Your task to perform on an android device: Search for the best selling phone on AliExpress Image 0: 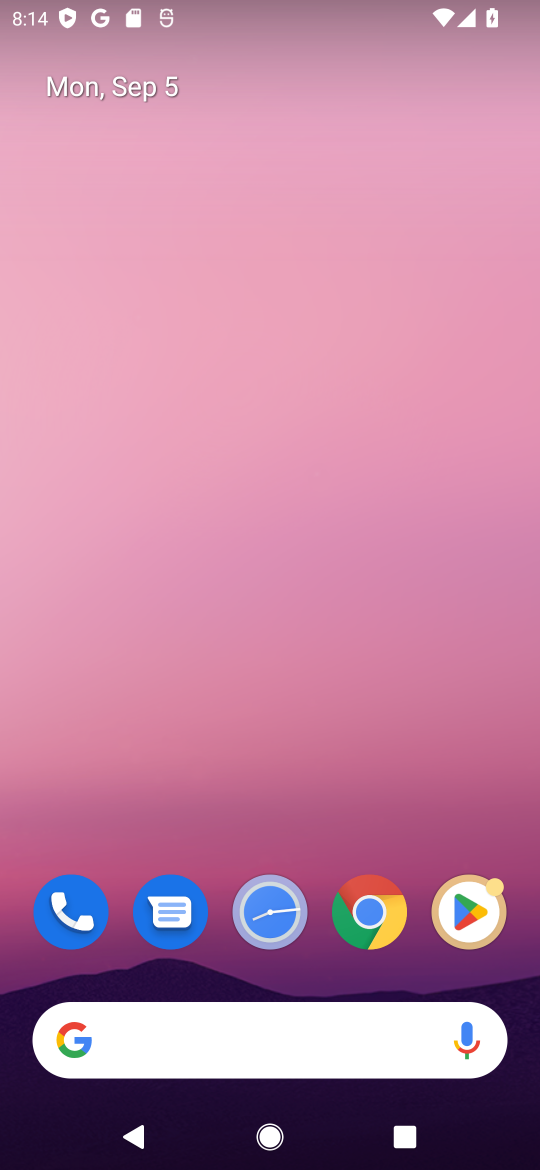
Step 0: click (374, 912)
Your task to perform on an android device: Search for the best selling phone on AliExpress Image 1: 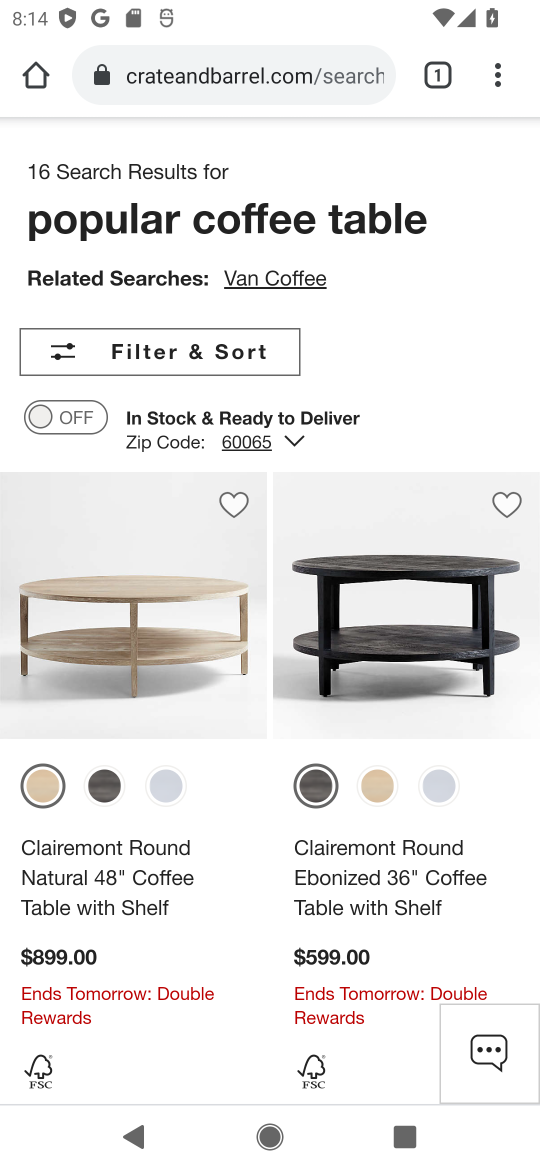
Step 1: click (288, 92)
Your task to perform on an android device: Search for the best selling phone on AliExpress Image 2: 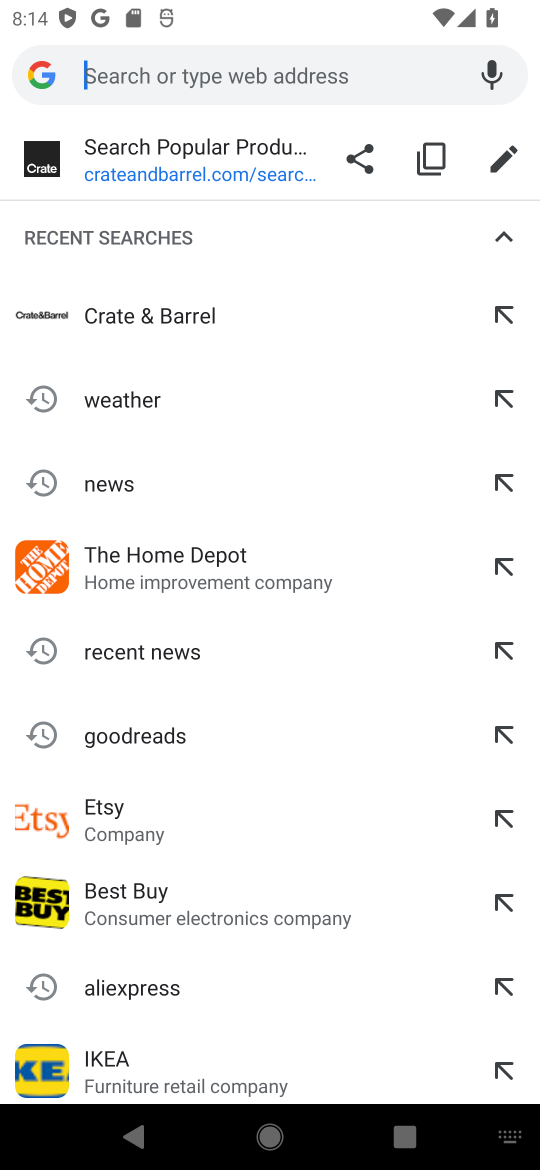
Step 2: type "aliexpress"
Your task to perform on an android device: Search for the best selling phone on AliExpress Image 3: 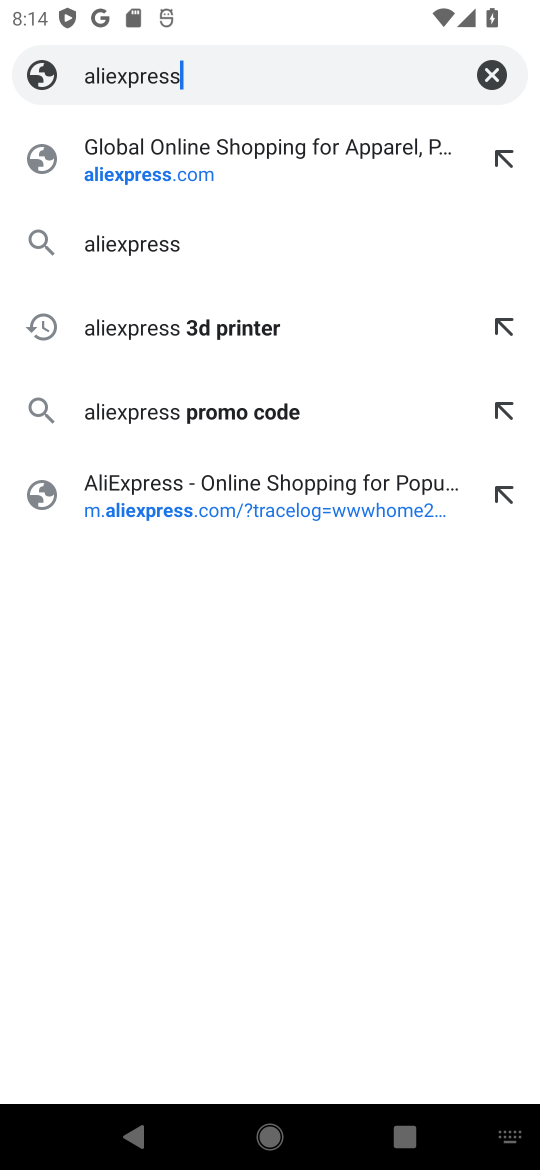
Step 3: press enter
Your task to perform on an android device: Search for the best selling phone on AliExpress Image 4: 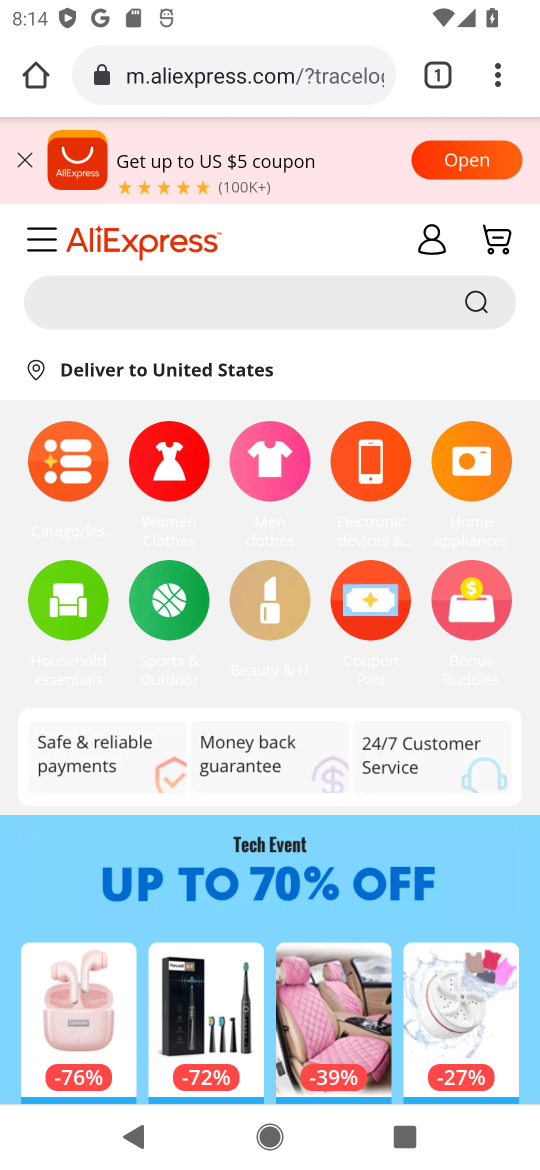
Step 4: click (174, 282)
Your task to perform on an android device: Search for the best selling phone on AliExpress Image 5: 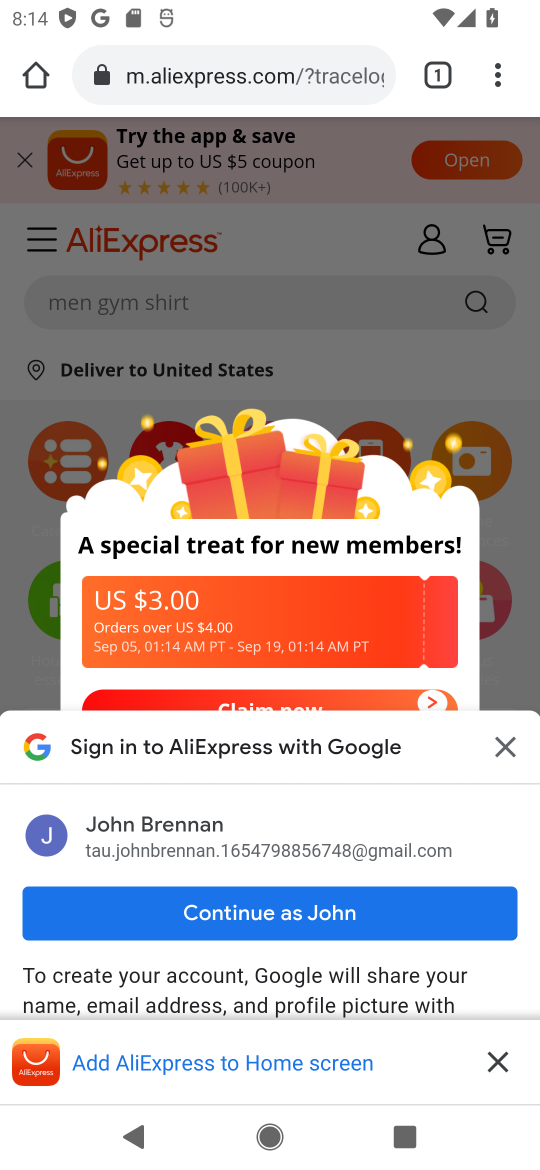
Step 5: click (493, 1057)
Your task to perform on an android device: Search for the best selling phone on AliExpress Image 6: 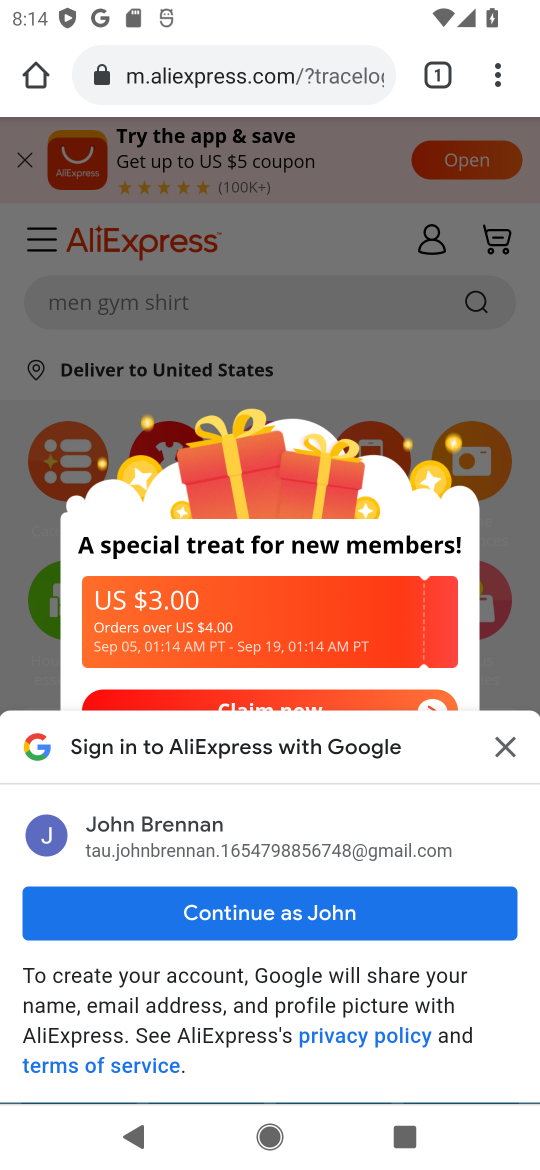
Step 6: click (412, 904)
Your task to perform on an android device: Search for the best selling phone on AliExpress Image 7: 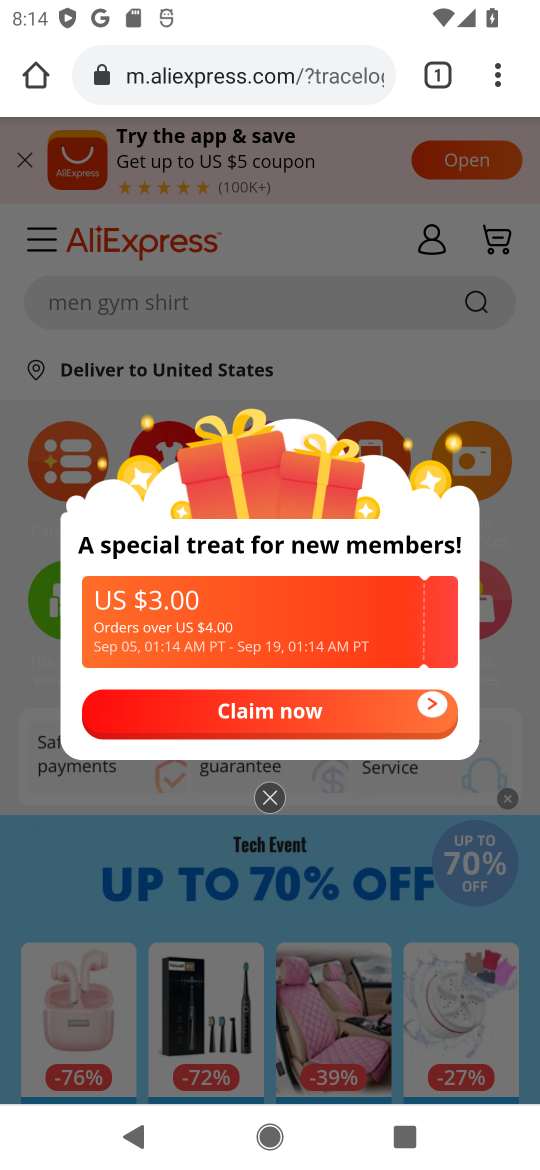
Step 7: click (283, 277)
Your task to perform on an android device: Search for the best selling phone on AliExpress Image 8: 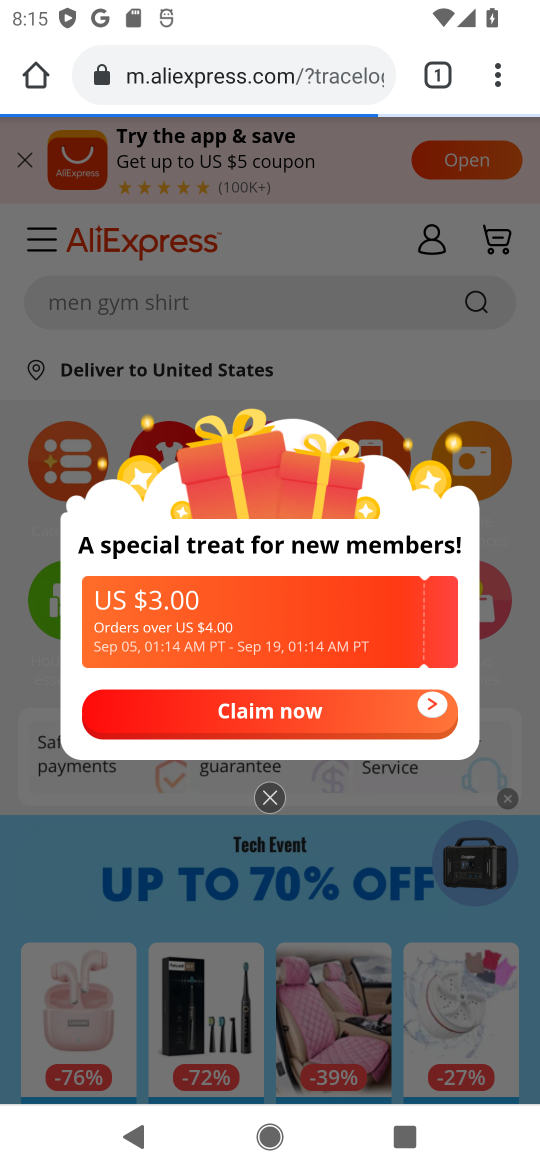
Step 8: click (436, 714)
Your task to perform on an android device: Search for the best selling phone on AliExpress Image 9: 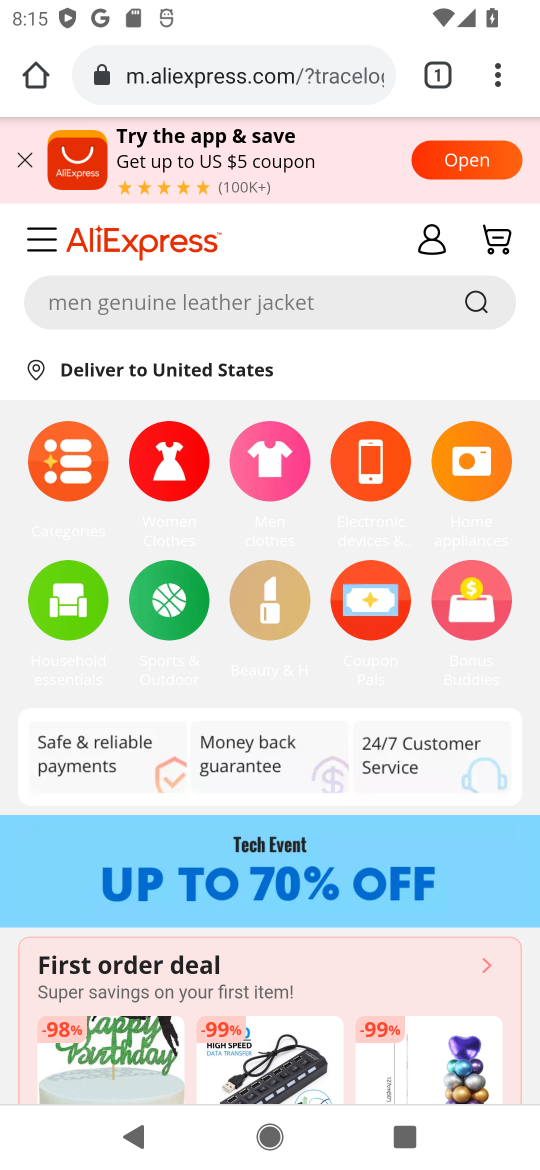
Step 9: click (213, 305)
Your task to perform on an android device: Search for the best selling phone on AliExpress Image 10: 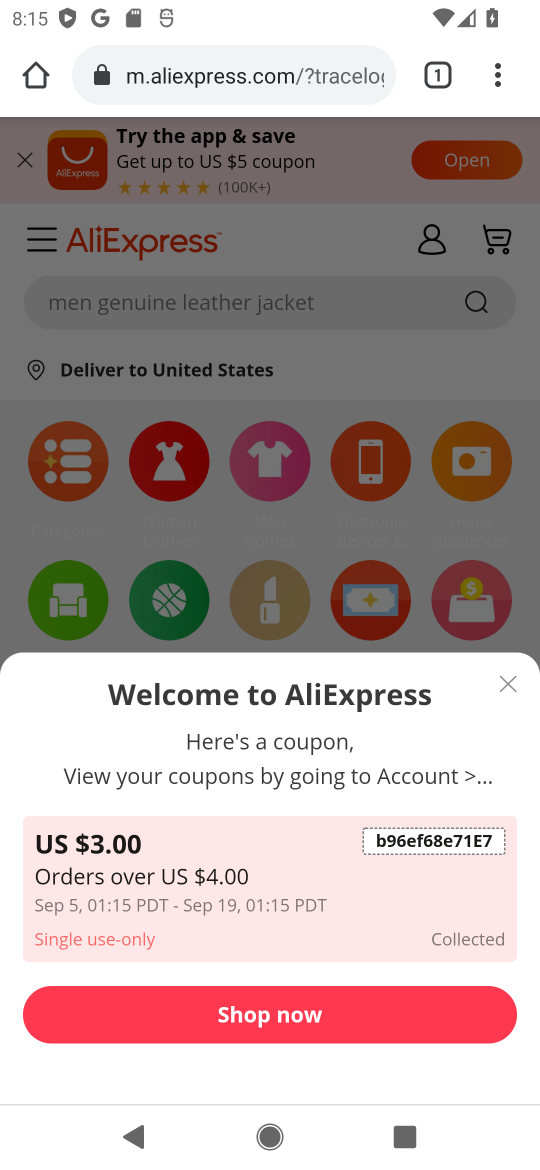
Step 10: click (277, 334)
Your task to perform on an android device: Search for the best selling phone on AliExpress Image 11: 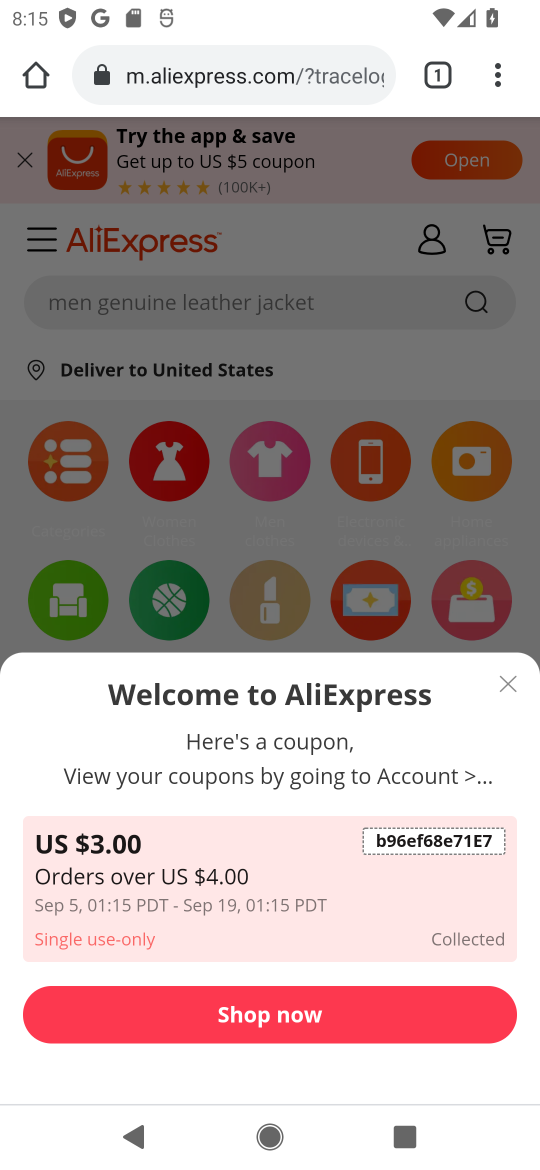
Step 11: click (505, 680)
Your task to perform on an android device: Search for the best selling phone on AliExpress Image 12: 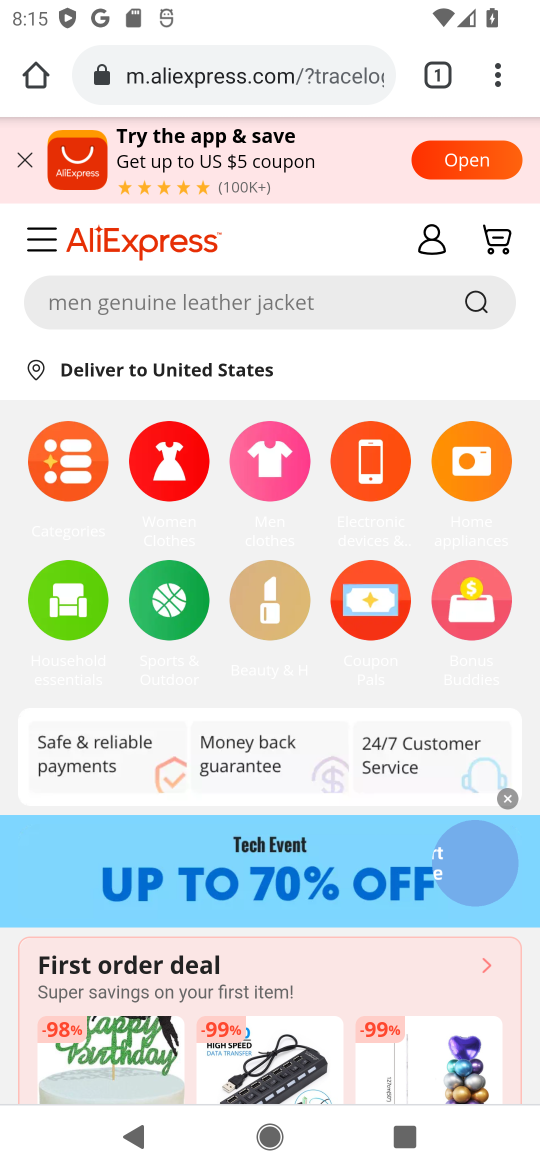
Step 12: click (205, 290)
Your task to perform on an android device: Search for the best selling phone on AliExpress Image 13: 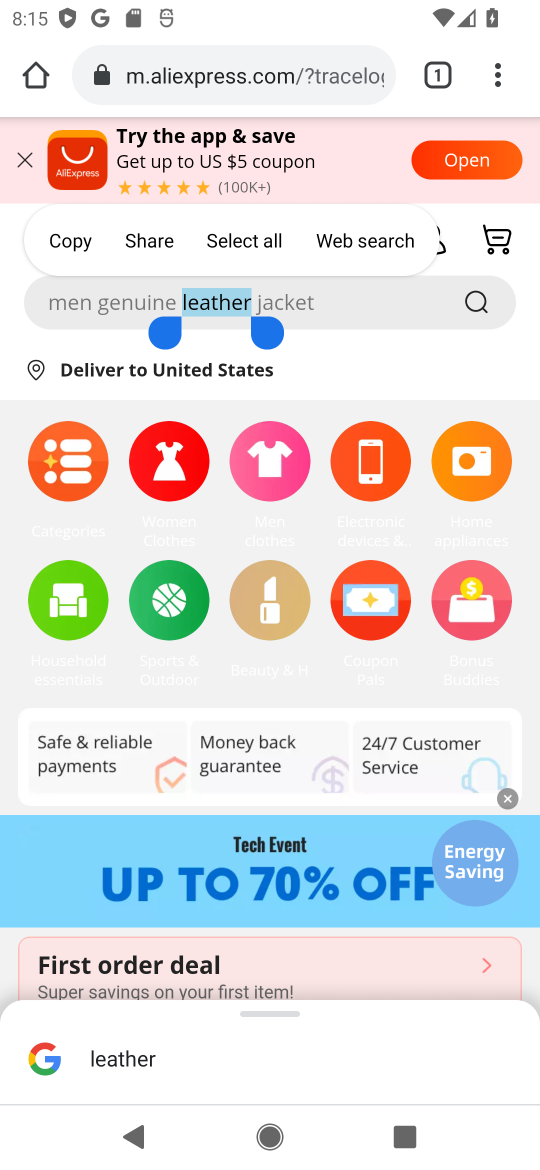
Step 13: click (323, 301)
Your task to perform on an android device: Search for the best selling phone on AliExpress Image 14: 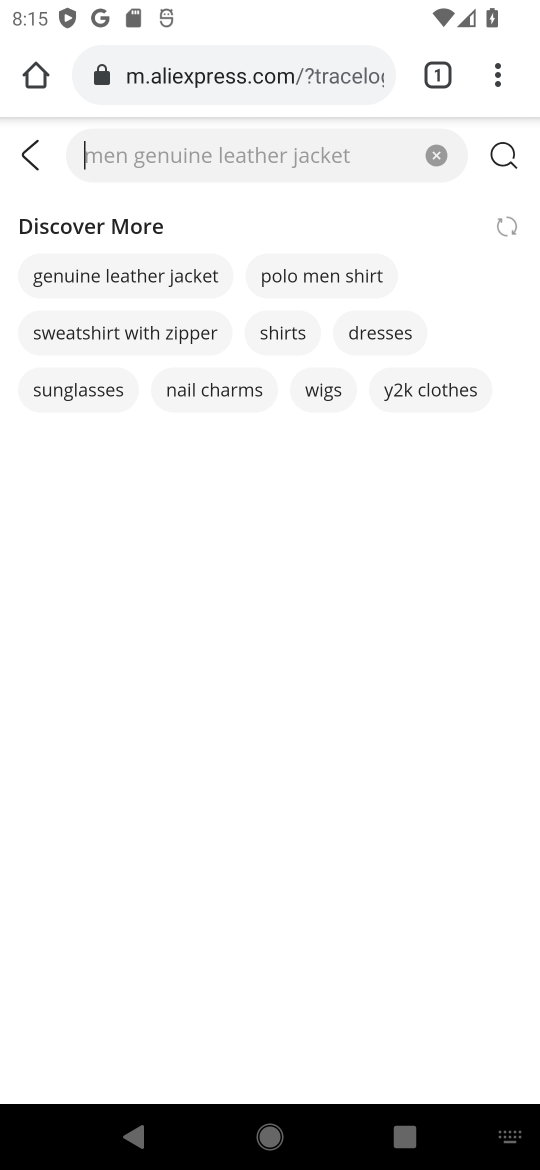
Step 14: type "best selling phone"
Your task to perform on an android device: Search for the best selling phone on AliExpress Image 15: 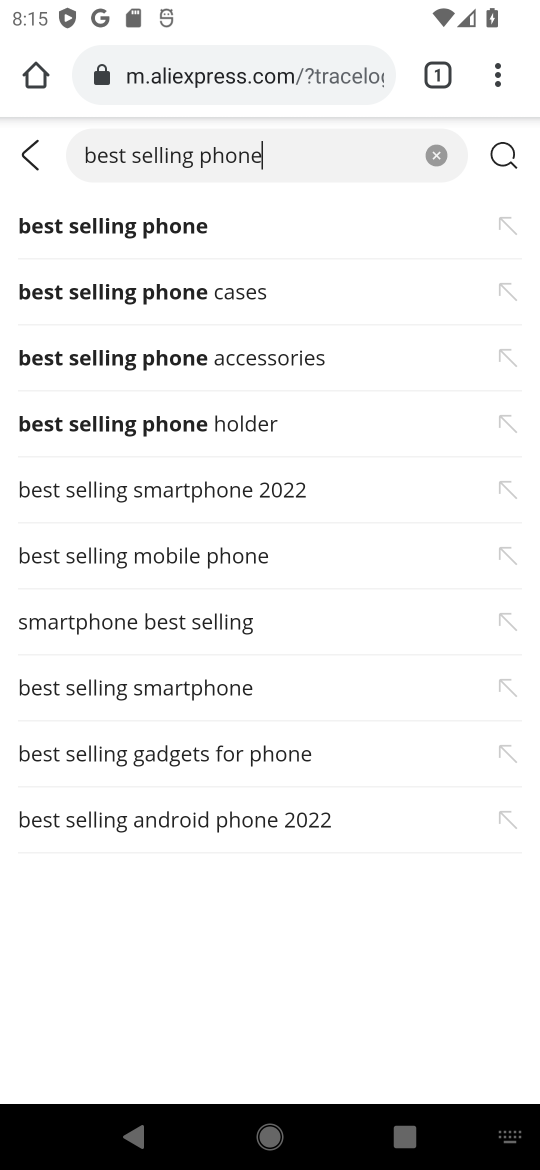
Step 15: press enter
Your task to perform on an android device: Search for the best selling phone on AliExpress Image 16: 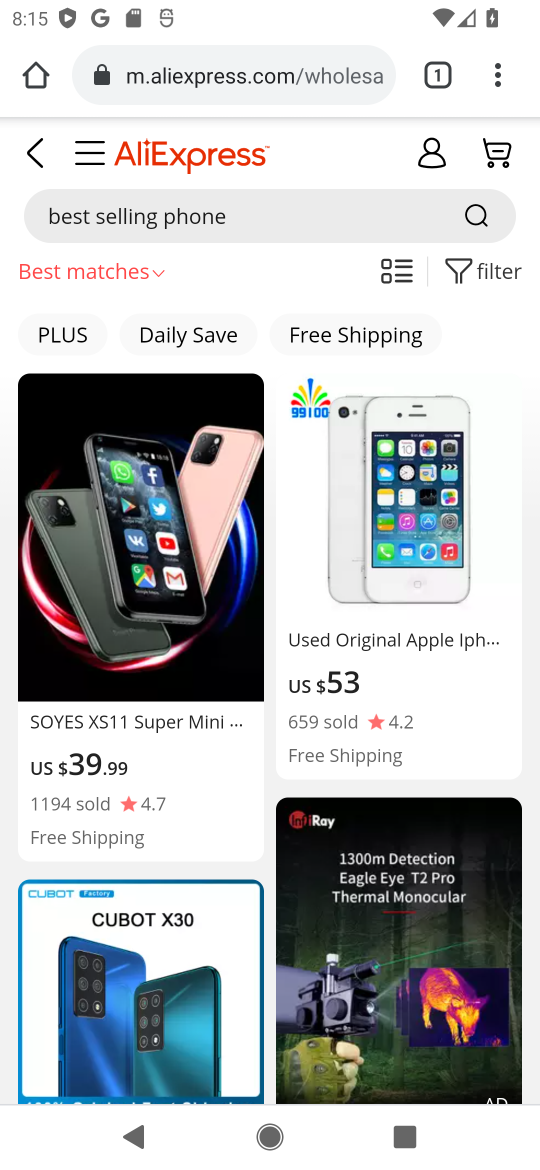
Step 16: click (490, 270)
Your task to perform on an android device: Search for the best selling phone on AliExpress Image 17: 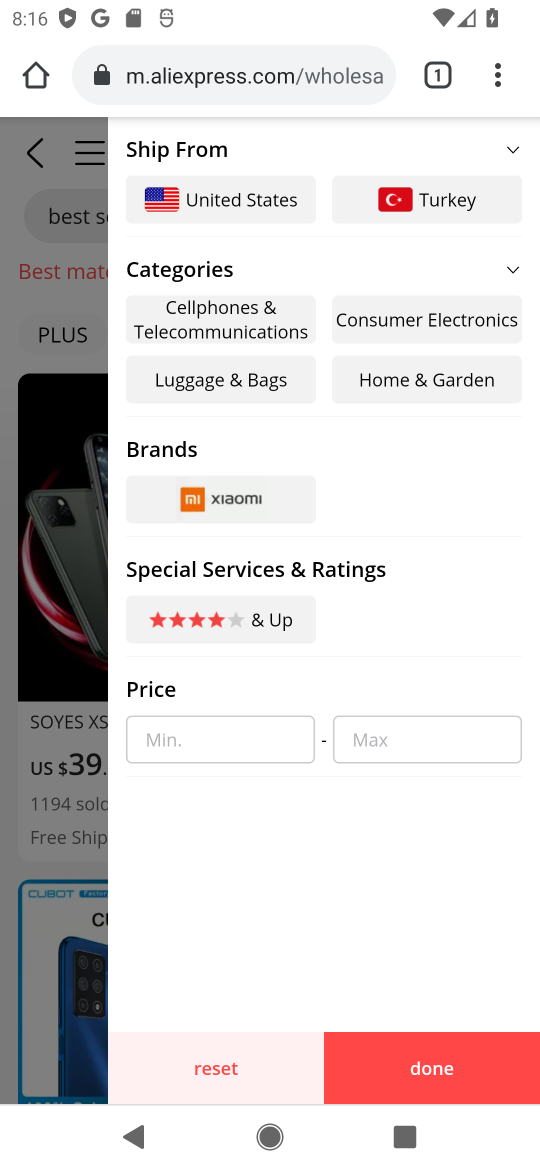
Step 17: click (2, 661)
Your task to perform on an android device: Search for the best selling phone on AliExpress Image 18: 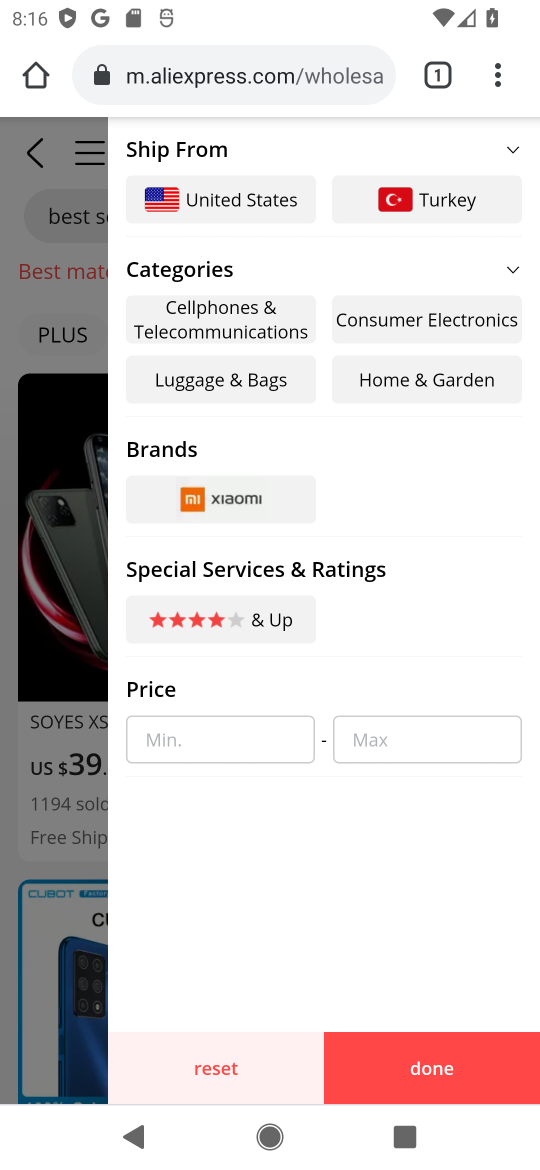
Step 18: click (26, 305)
Your task to perform on an android device: Search for the best selling phone on AliExpress Image 19: 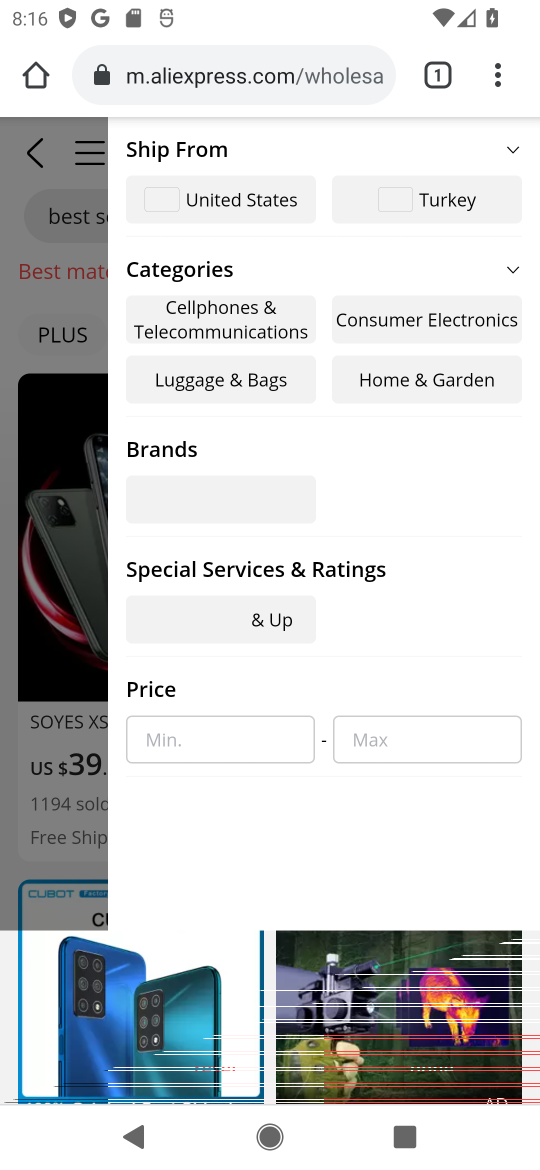
Step 19: task complete